Your task to perform on an android device: Search for Italian restaurants on Maps Image 0: 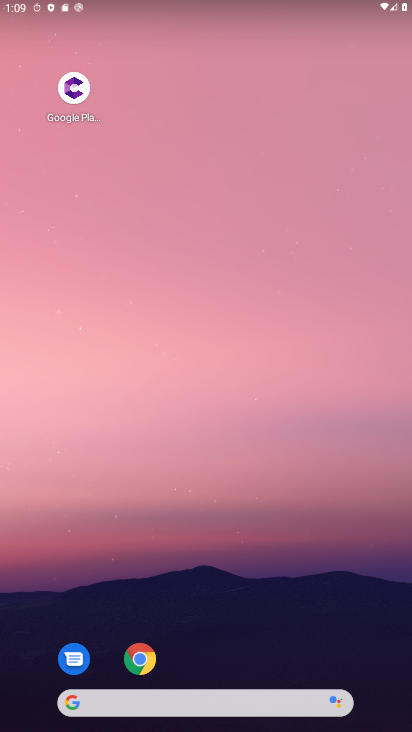
Step 0: drag from (215, 648) to (223, 136)
Your task to perform on an android device: Search for Italian restaurants on Maps Image 1: 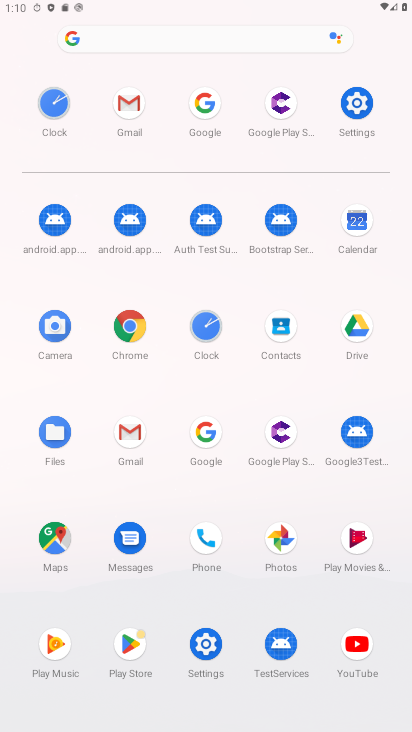
Step 1: click (65, 539)
Your task to perform on an android device: Search for Italian restaurants on Maps Image 2: 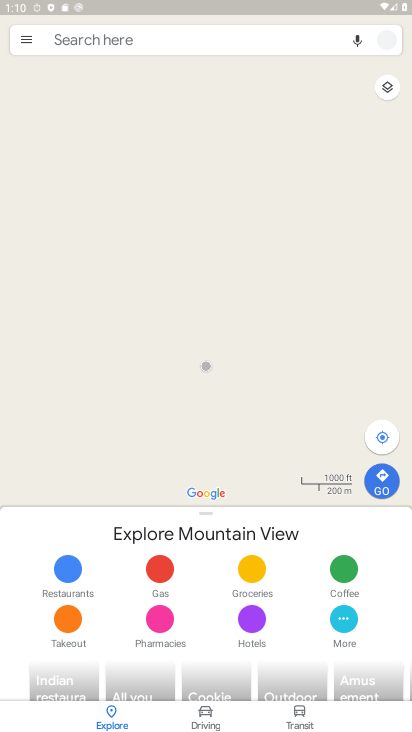
Step 2: click (244, 40)
Your task to perform on an android device: Search for Italian restaurants on Maps Image 3: 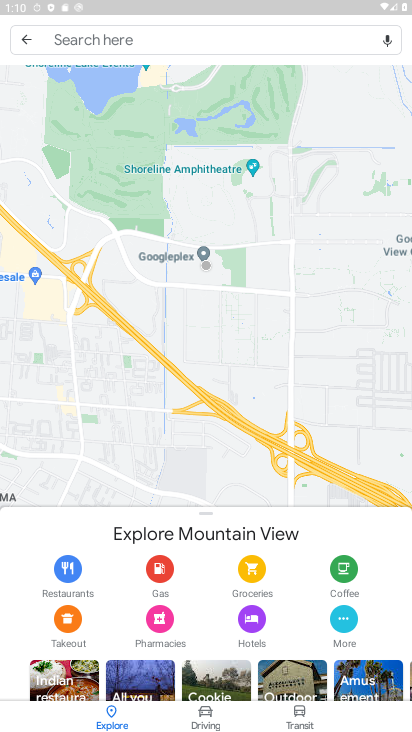
Step 3: type "Italian restaurants"
Your task to perform on an android device: Search for Italian restaurants on Maps Image 4: 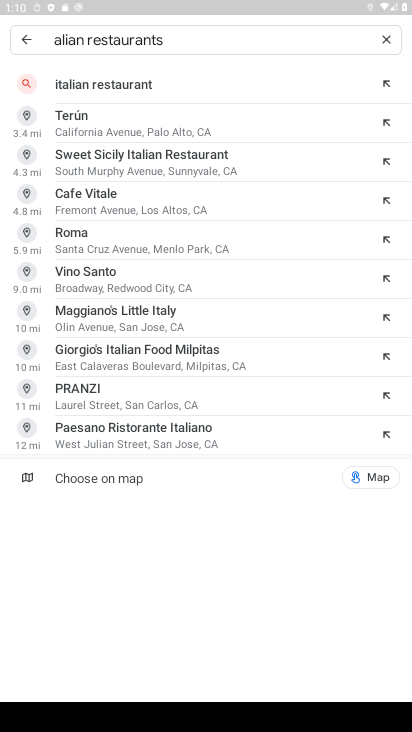
Step 4: click (155, 88)
Your task to perform on an android device: Search for Italian restaurants on Maps Image 5: 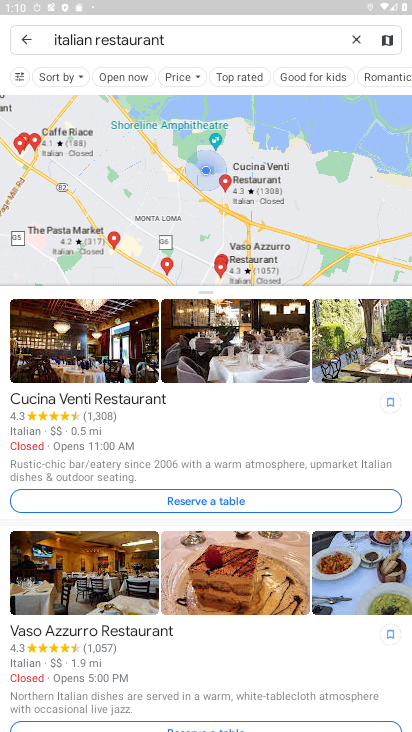
Step 5: task complete